Your task to perform on an android device: Add acer predator to the cart on bestbuy.com Image 0: 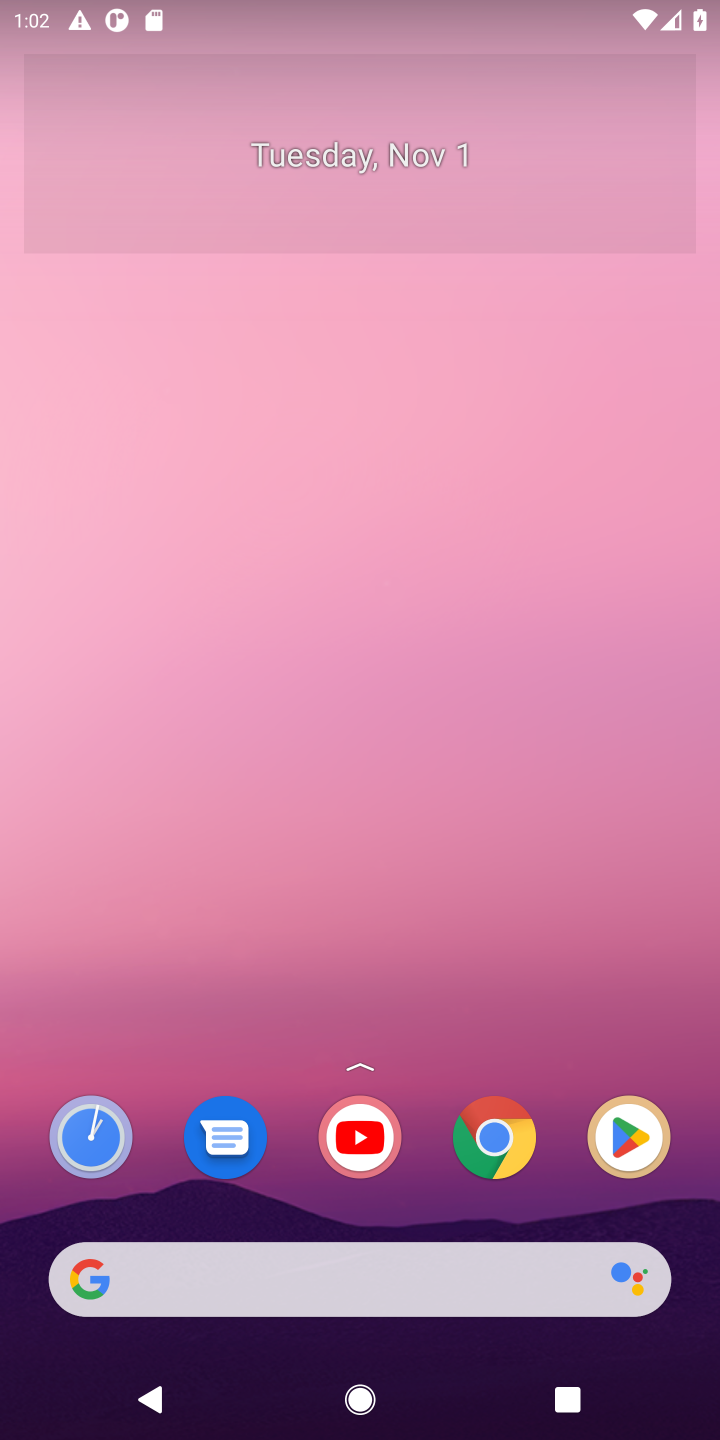
Step 0: drag from (427, 1149) to (639, 19)
Your task to perform on an android device: Add acer predator to the cart on bestbuy.com Image 1: 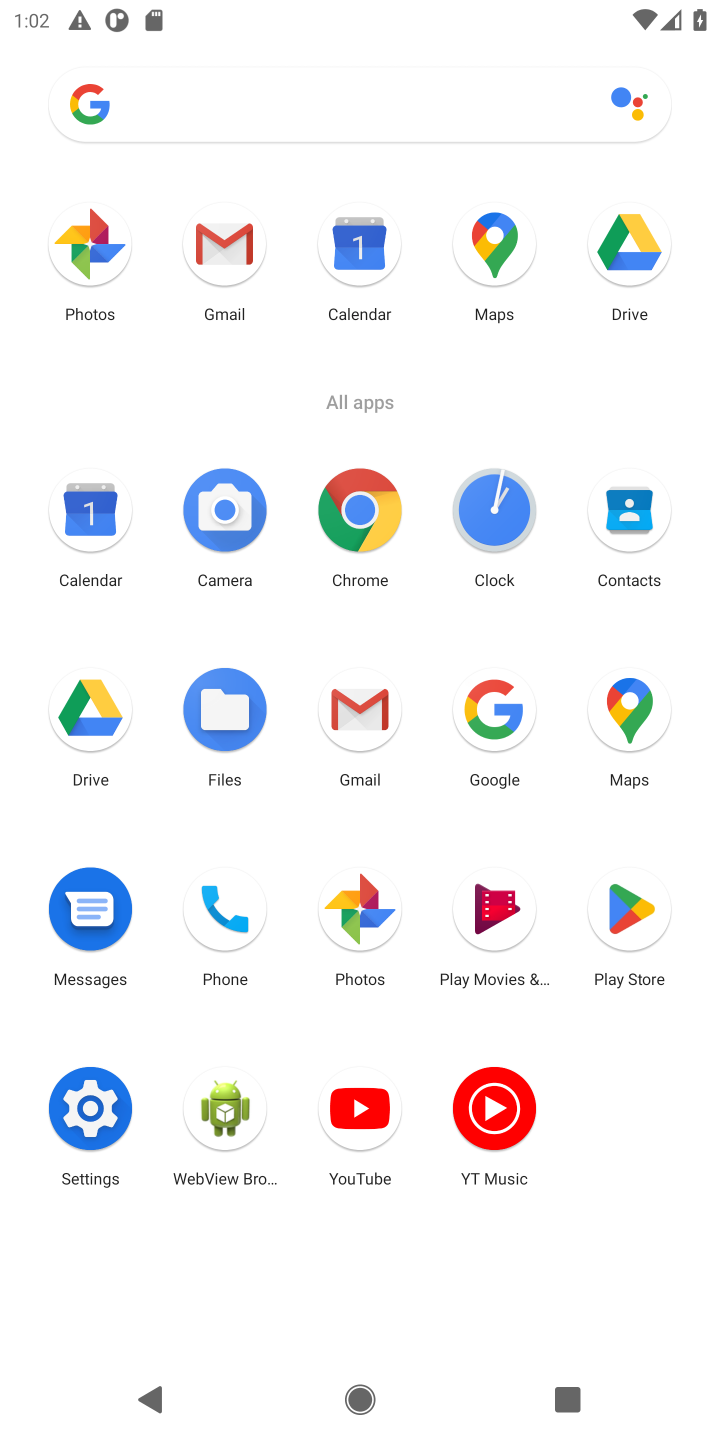
Step 1: click (351, 512)
Your task to perform on an android device: Add acer predator to the cart on bestbuy.com Image 2: 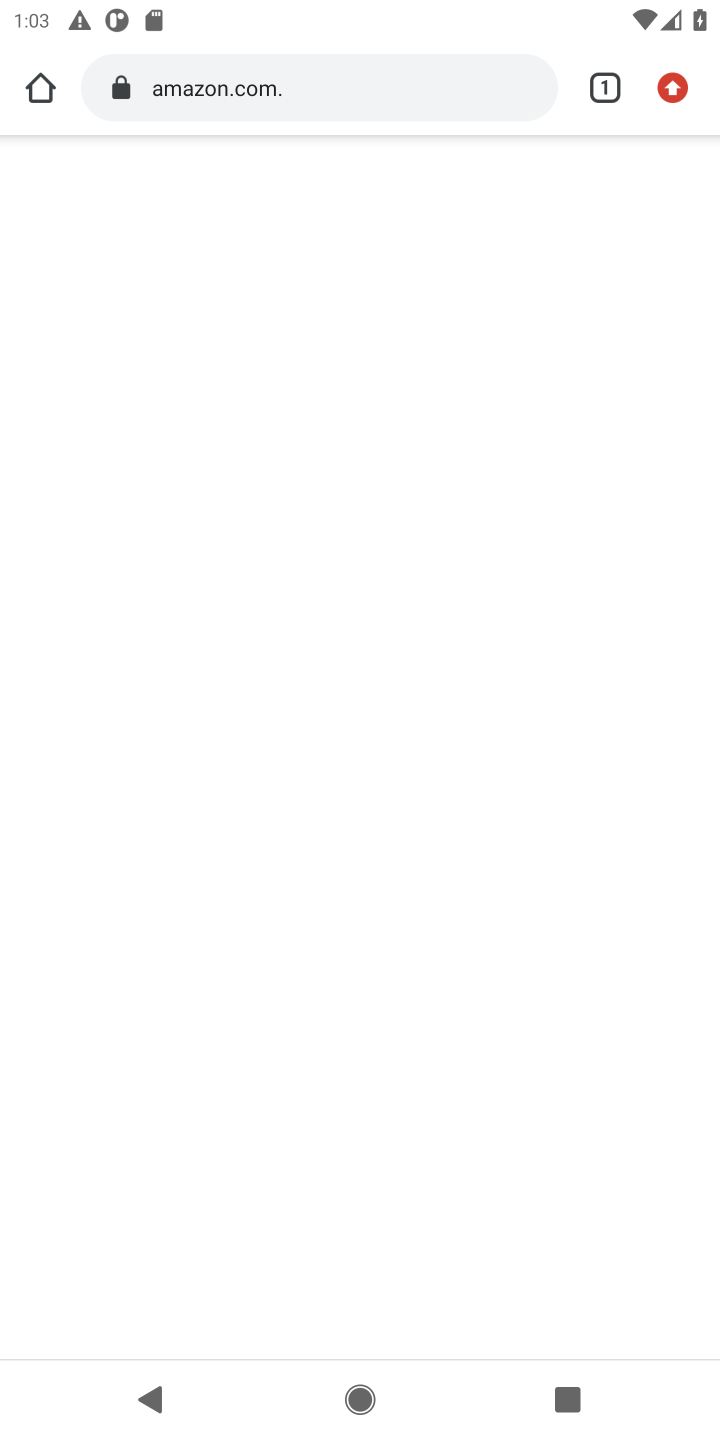
Step 2: click (305, 92)
Your task to perform on an android device: Add acer predator to the cart on bestbuy.com Image 3: 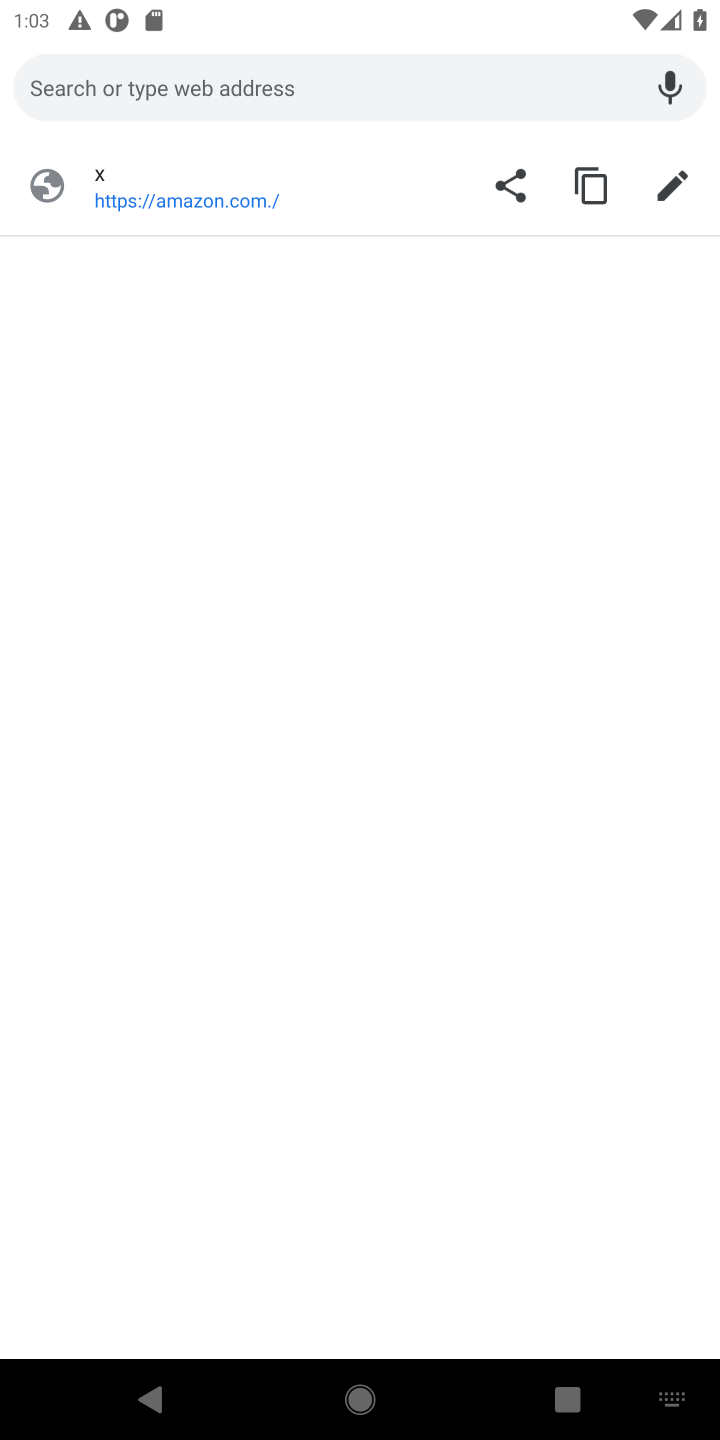
Step 3: type "bestbuy.com"
Your task to perform on an android device: Add acer predator to the cart on bestbuy.com Image 4: 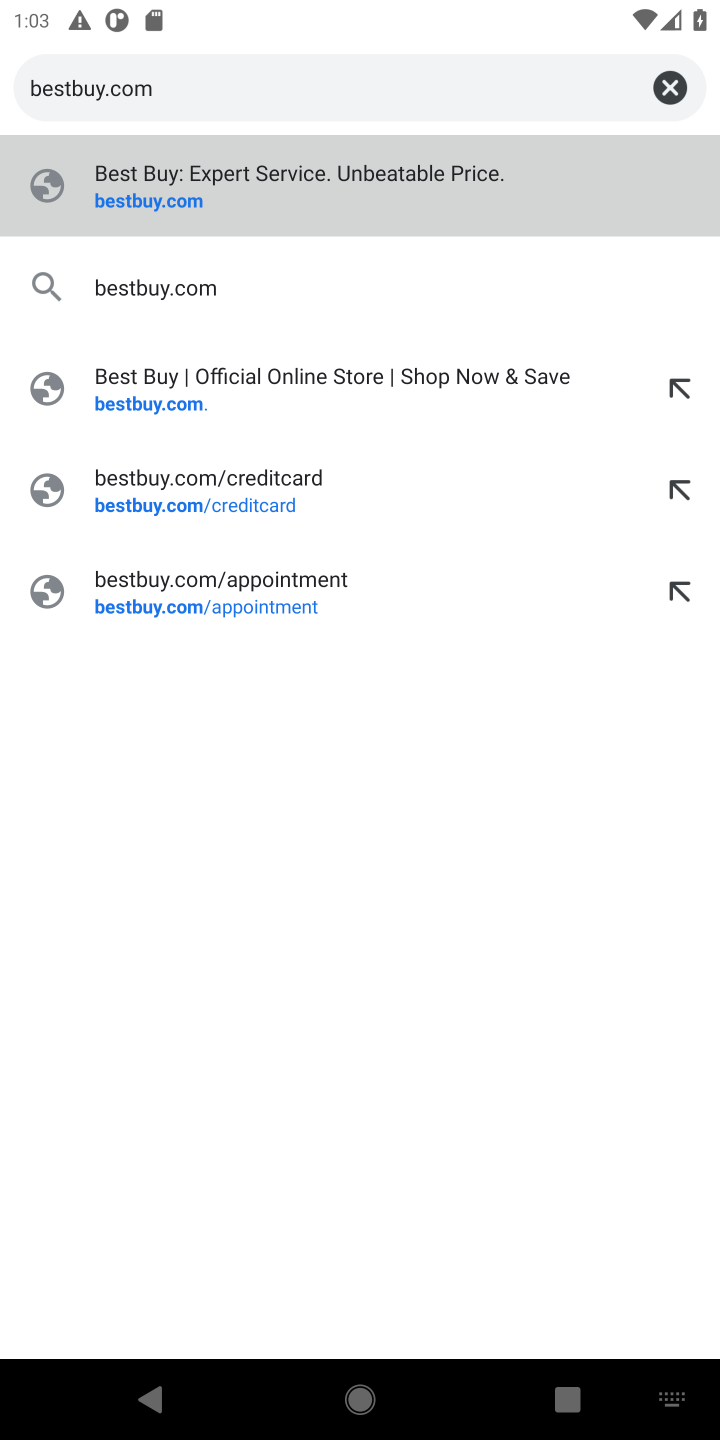
Step 4: press enter
Your task to perform on an android device: Add acer predator to the cart on bestbuy.com Image 5: 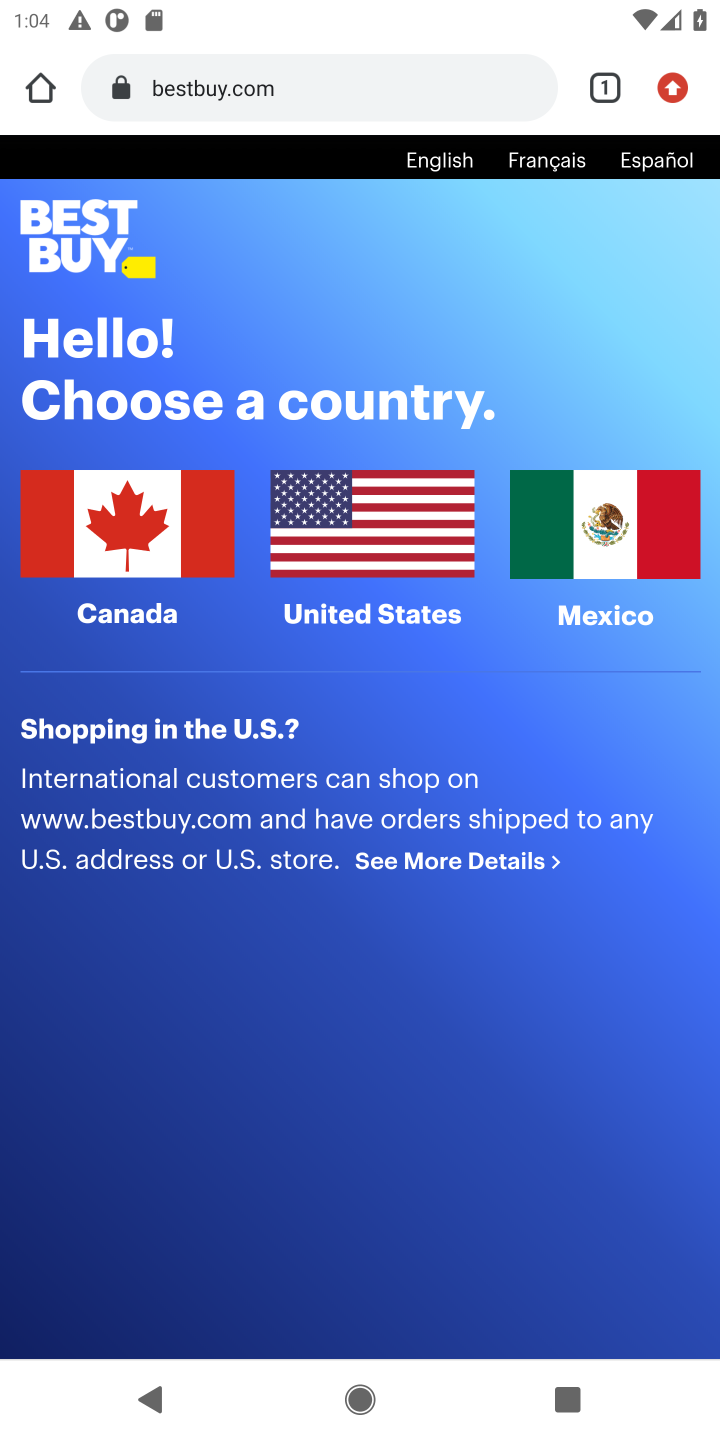
Step 5: click (194, 539)
Your task to perform on an android device: Add acer predator to the cart on bestbuy.com Image 6: 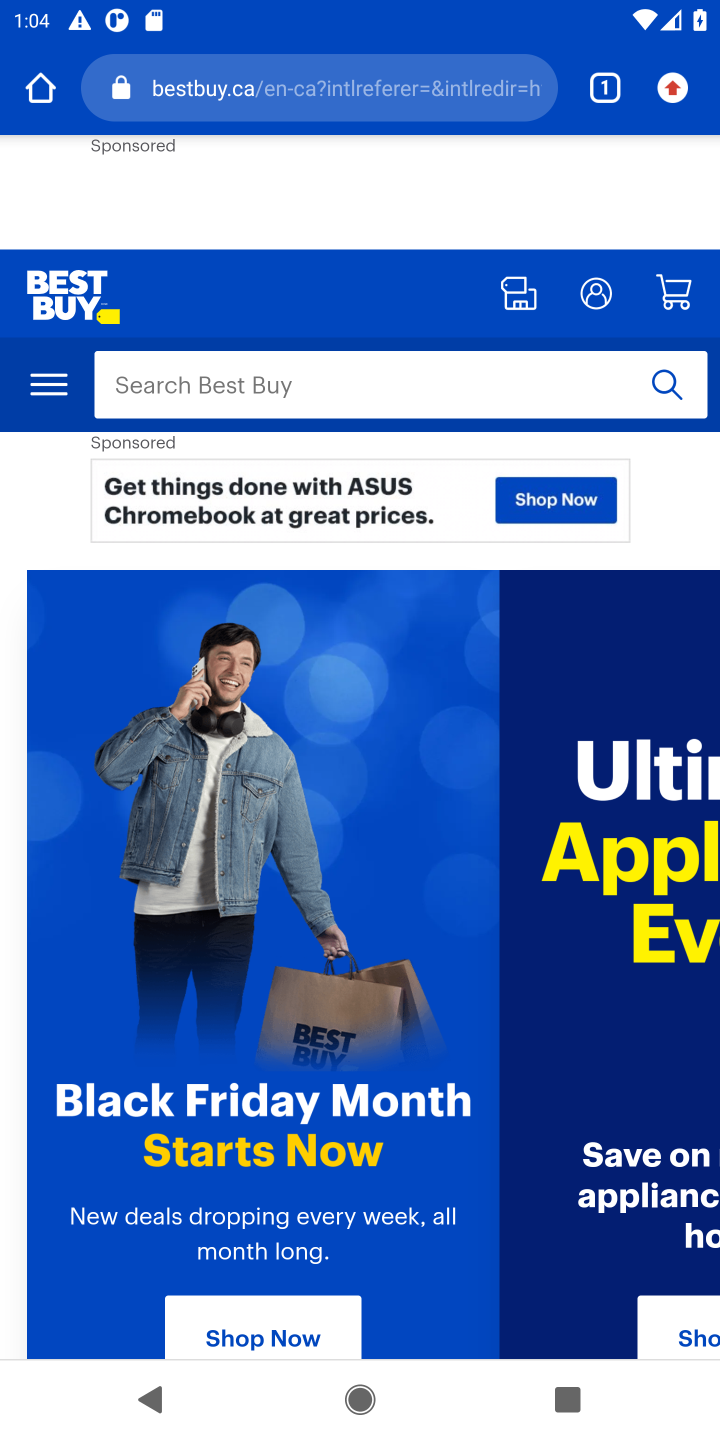
Step 6: click (169, 382)
Your task to perform on an android device: Add acer predator to the cart on bestbuy.com Image 7: 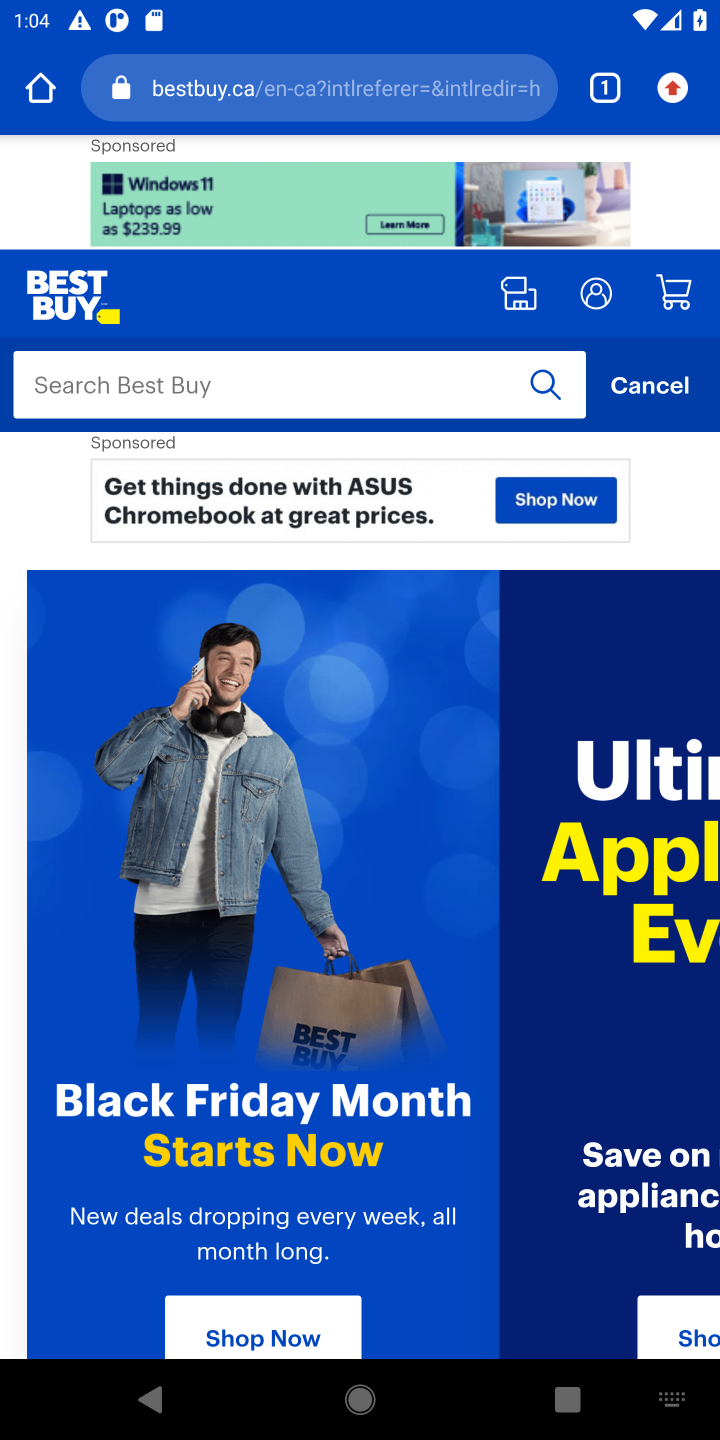
Step 7: type "acer predator "
Your task to perform on an android device: Add acer predator to the cart on bestbuy.com Image 8: 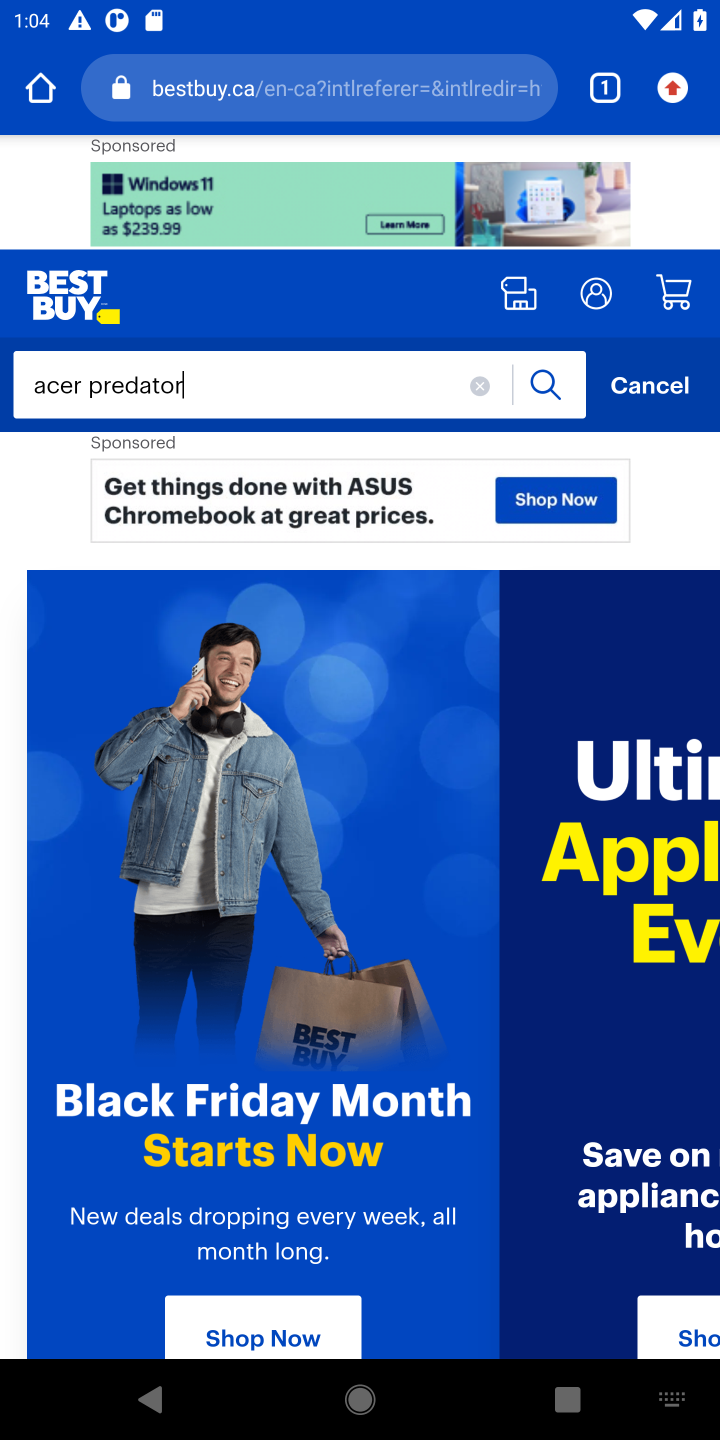
Step 8: press enter
Your task to perform on an android device: Add acer predator to the cart on bestbuy.com Image 9: 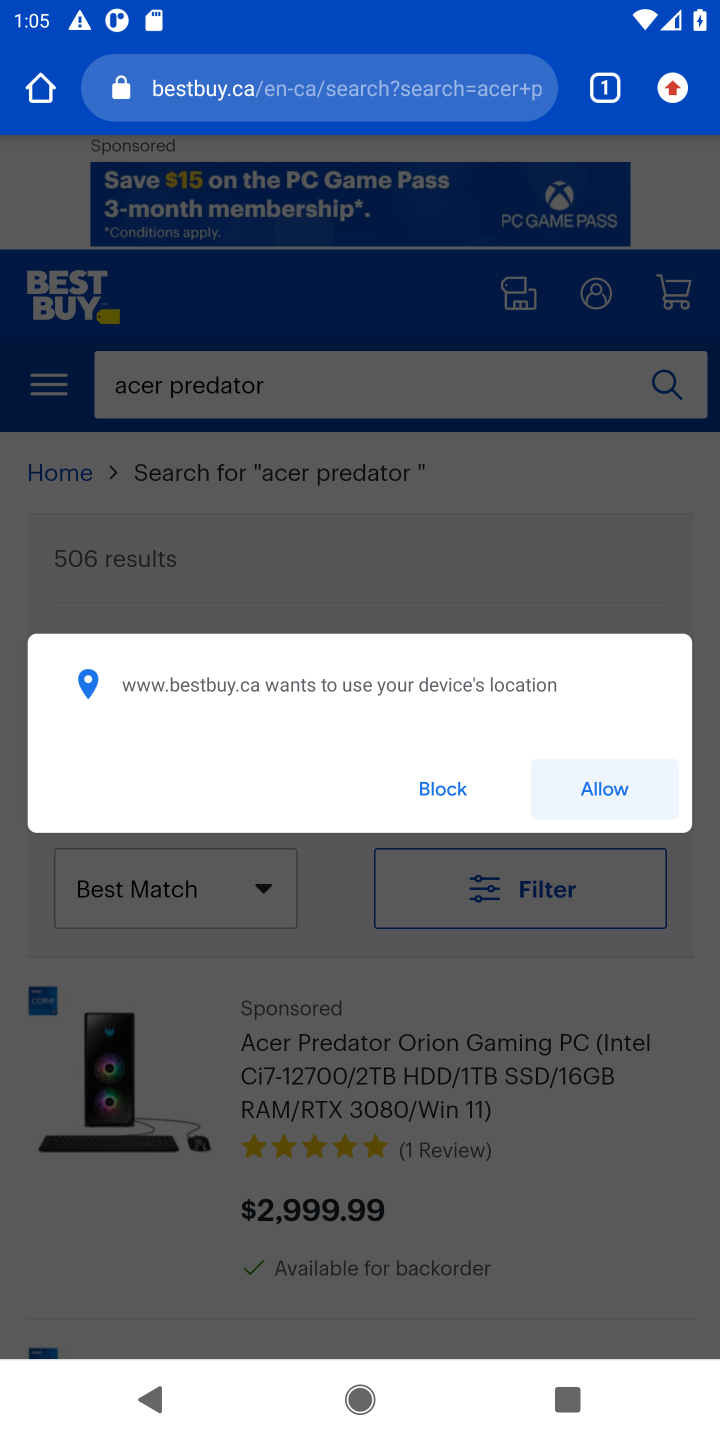
Step 9: click (605, 789)
Your task to perform on an android device: Add acer predator to the cart on bestbuy.com Image 10: 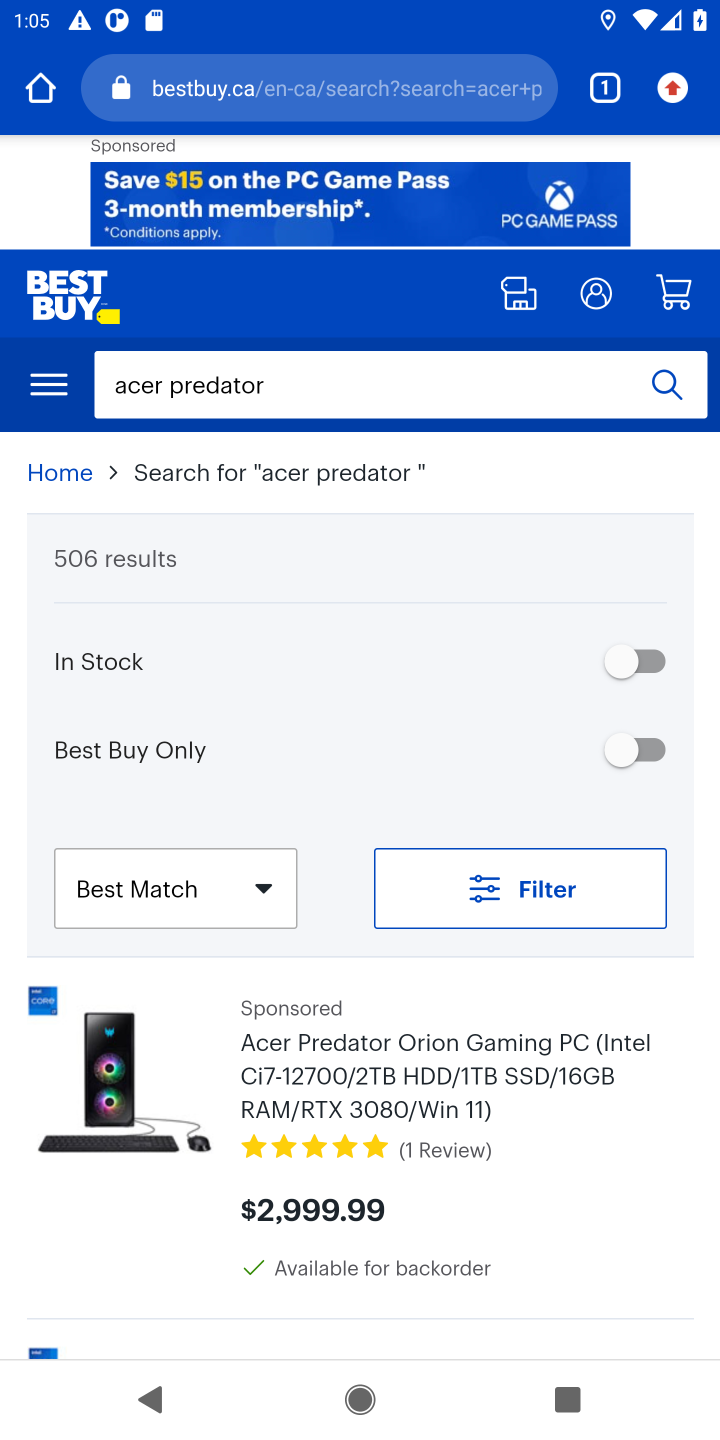
Step 10: drag from (279, 1034) to (337, 540)
Your task to perform on an android device: Add acer predator to the cart on bestbuy.com Image 11: 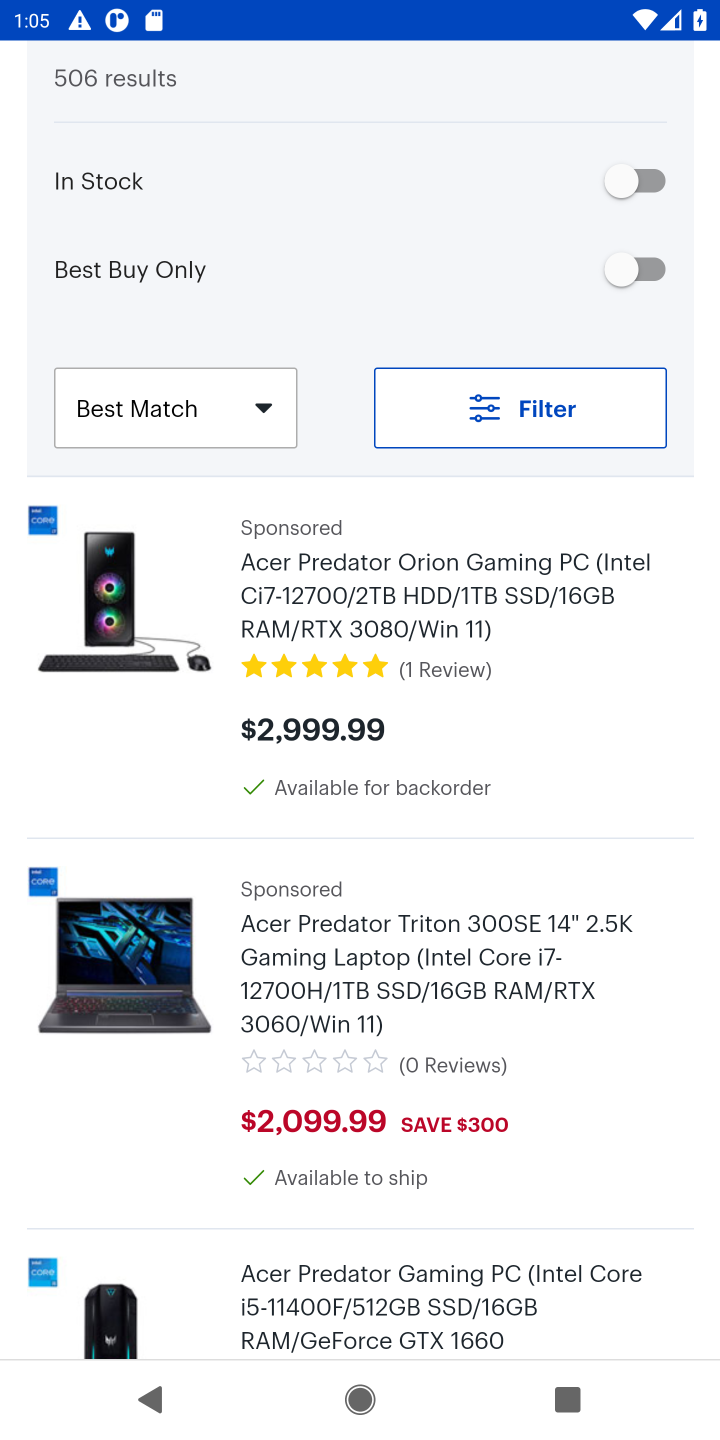
Step 11: drag from (385, 732) to (473, 529)
Your task to perform on an android device: Add acer predator to the cart on bestbuy.com Image 12: 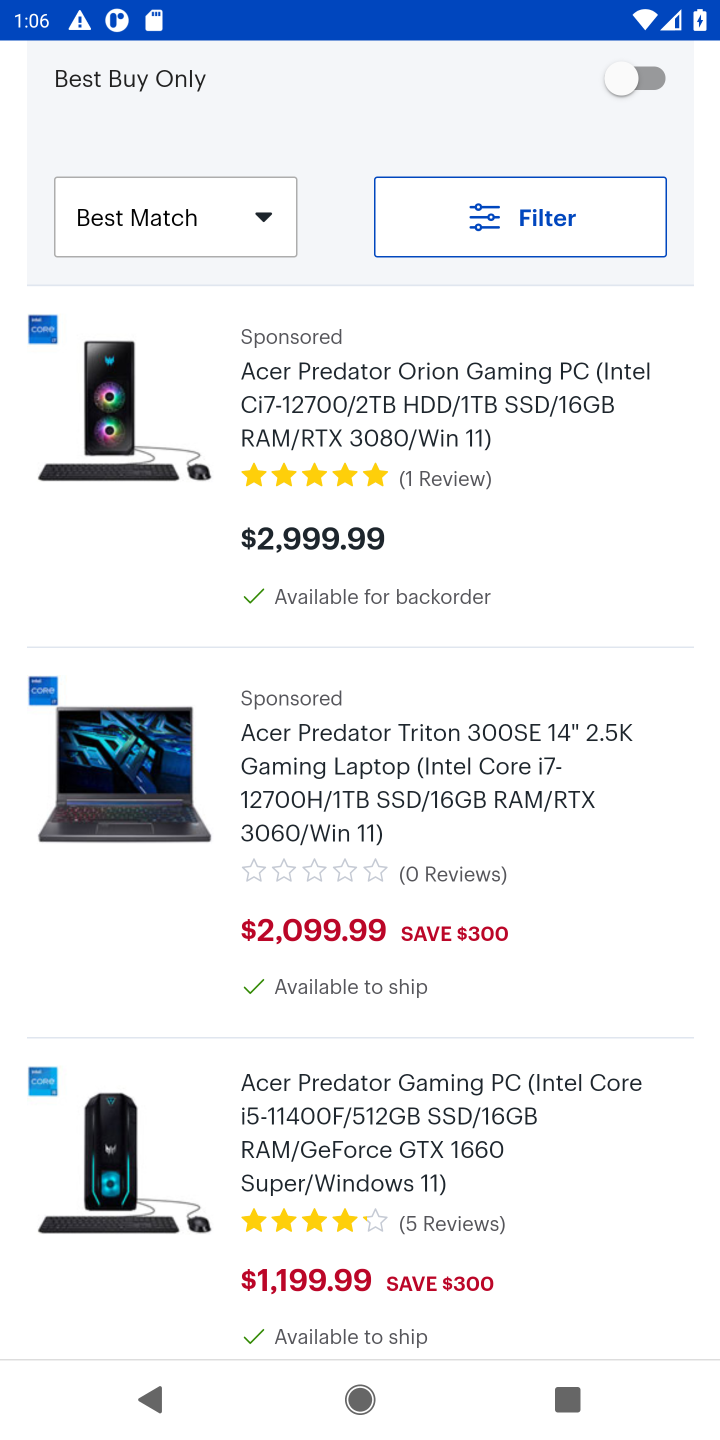
Step 12: click (343, 433)
Your task to perform on an android device: Add acer predator to the cart on bestbuy.com Image 13: 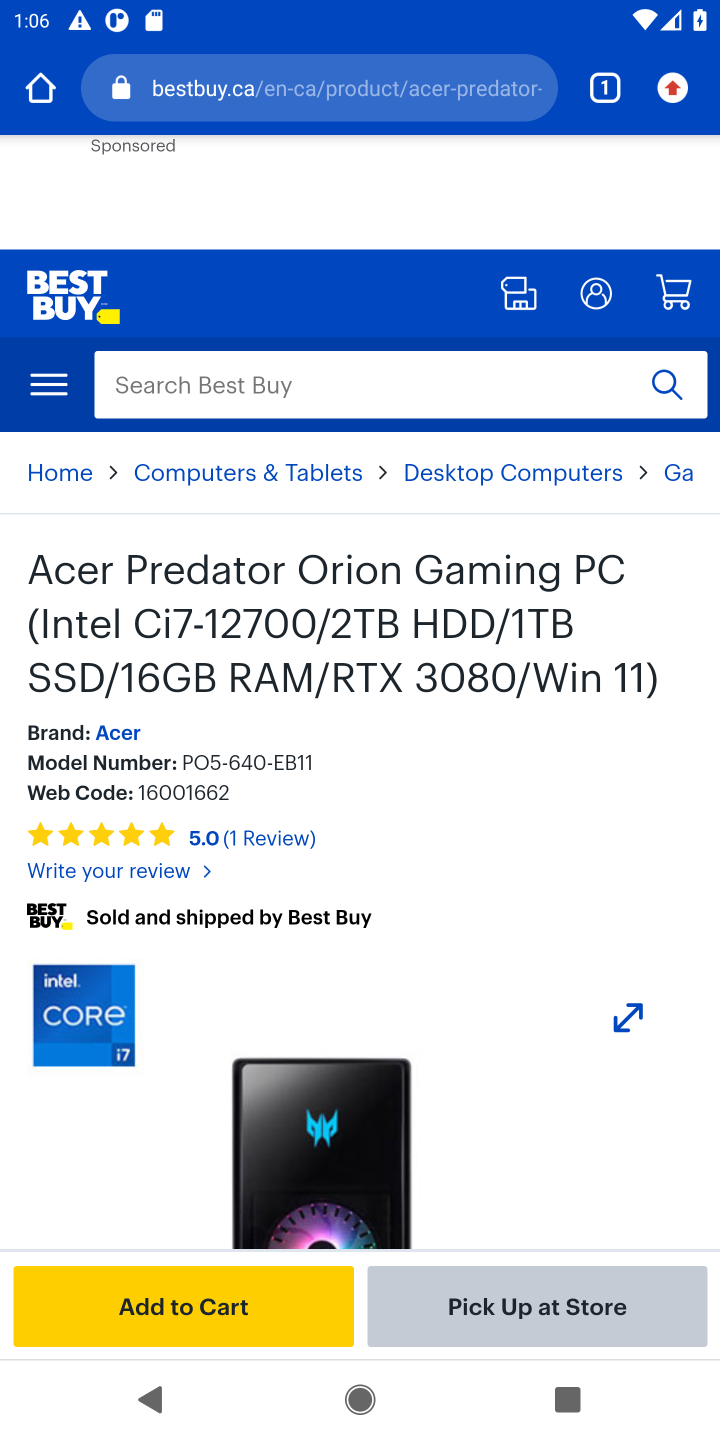
Step 13: click (212, 1296)
Your task to perform on an android device: Add acer predator to the cart on bestbuy.com Image 14: 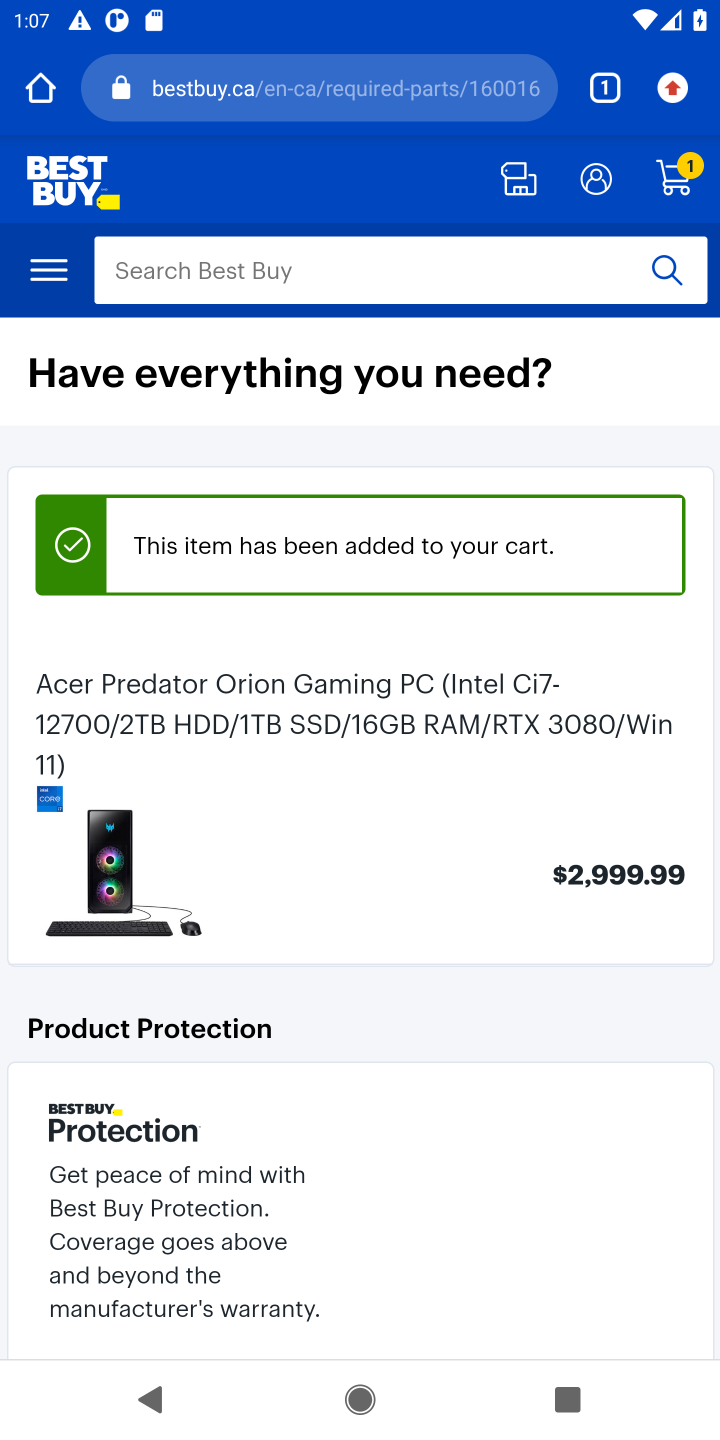
Step 14: task complete